Your task to perform on an android device: Find coffee shops on Maps Image 0: 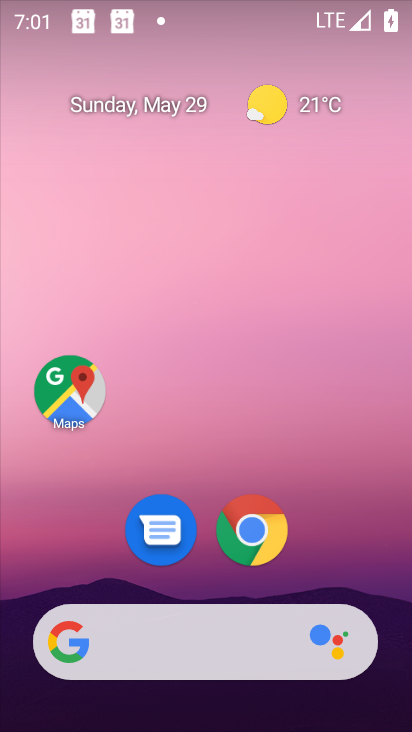
Step 0: drag from (264, 607) to (311, 245)
Your task to perform on an android device: Find coffee shops on Maps Image 1: 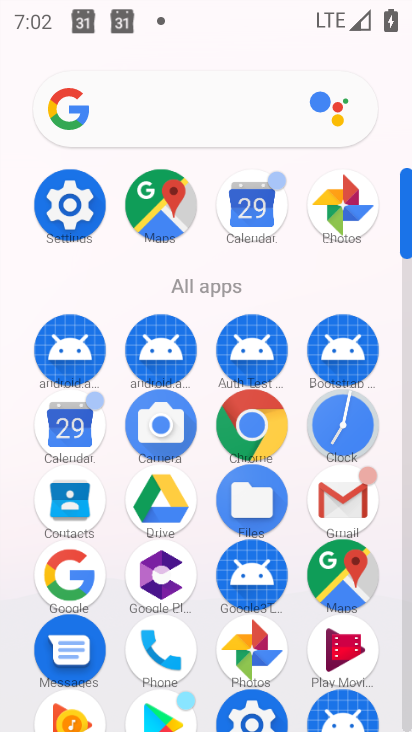
Step 1: click (158, 212)
Your task to perform on an android device: Find coffee shops on Maps Image 2: 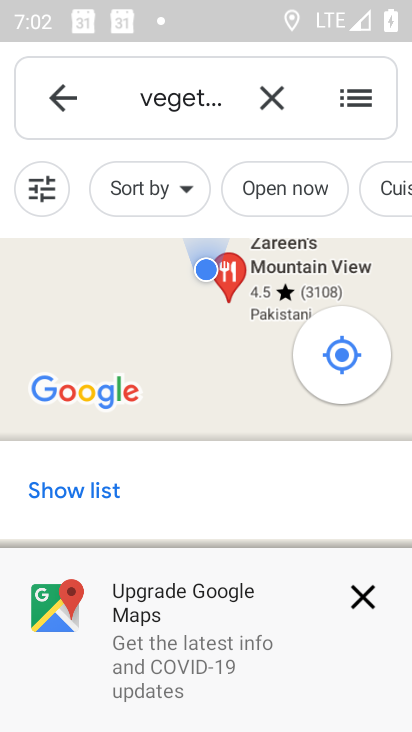
Step 2: click (267, 108)
Your task to perform on an android device: Find coffee shops on Maps Image 3: 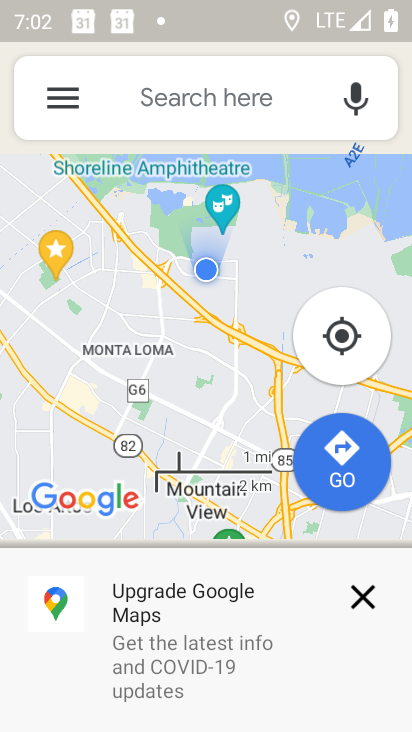
Step 3: click (366, 597)
Your task to perform on an android device: Find coffee shops on Maps Image 4: 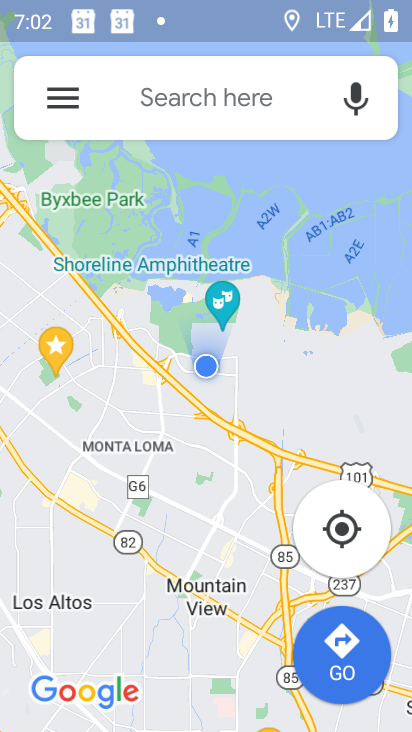
Step 4: click (193, 107)
Your task to perform on an android device: Find coffee shops on Maps Image 5: 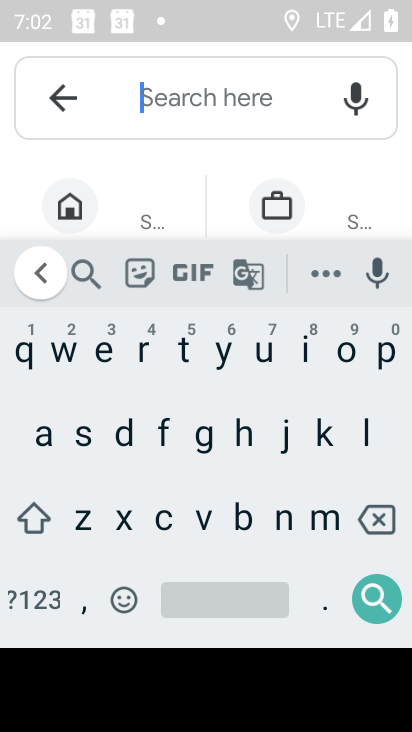
Step 5: click (163, 513)
Your task to perform on an android device: Find coffee shops on Maps Image 6: 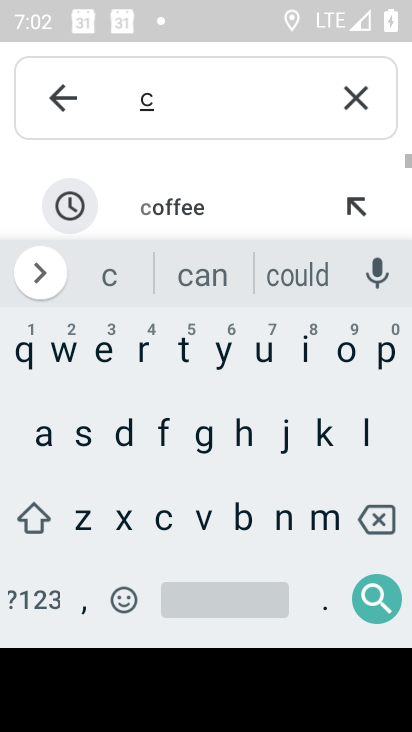
Step 6: click (193, 192)
Your task to perform on an android device: Find coffee shops on Maps Image 7: 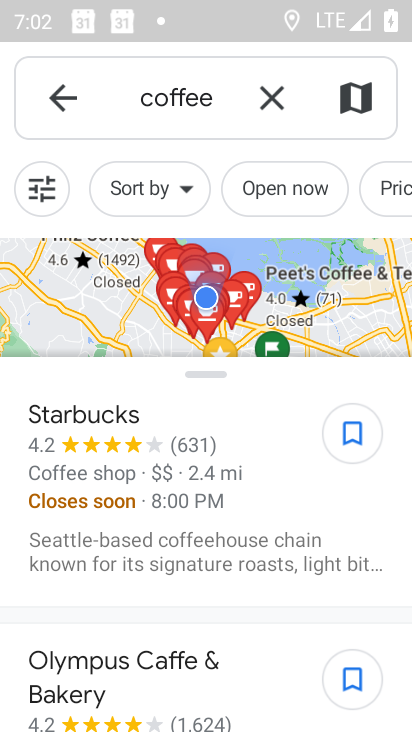
Step 7: click (260, 270)
Your task to perform on an android device: Find coffee shops on Maps Image 8: 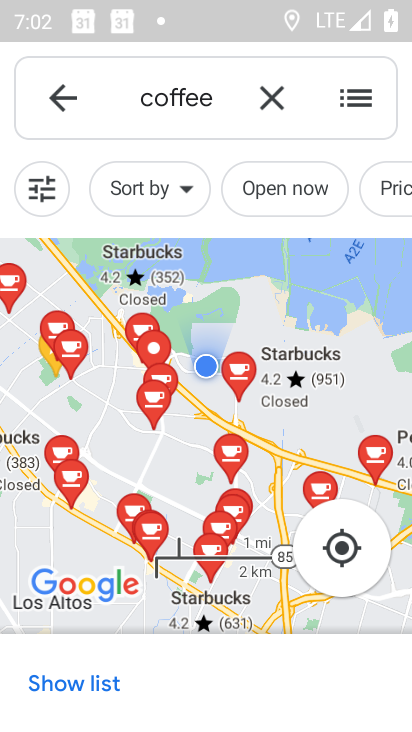
Step 8: task complete